Your task to perform on an android device: turn on data saver in the chrome app Image 0: 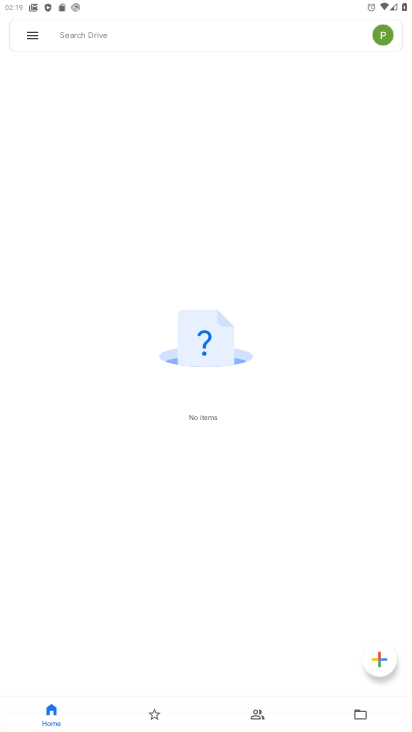
Step 0: press home button
Your task to perform on an android device: turn on data saver in the chrome app Image 1: 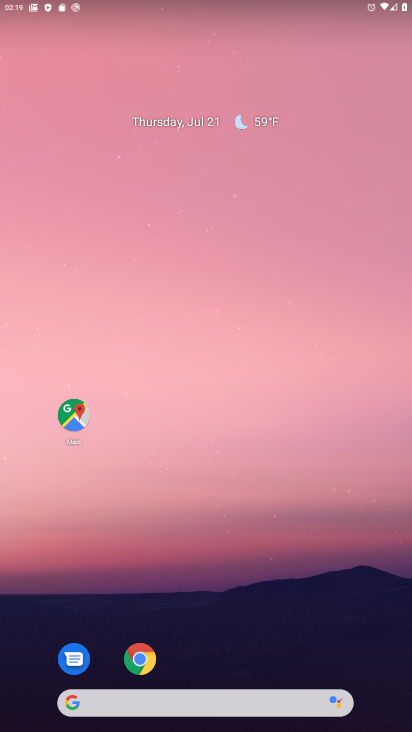
Step 1: drag from (346, 606) to (243, 165)
Your task to perform on an android device: turn on data saver in the chrome app Image 2: 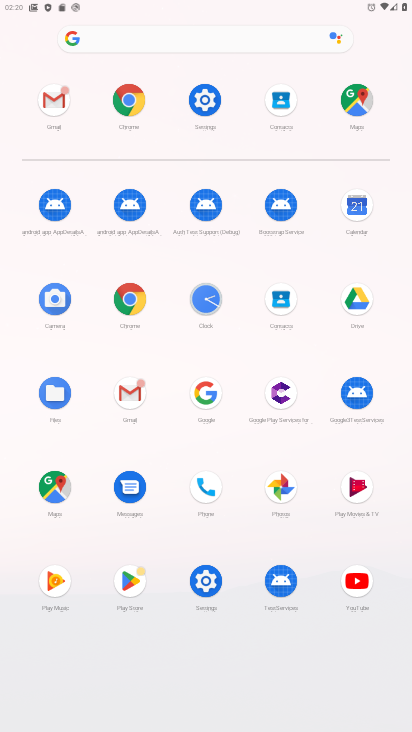
Step 2: click (127, 295)
Your task to perform on an android device: turn on data saver in the chrome app Image 3: 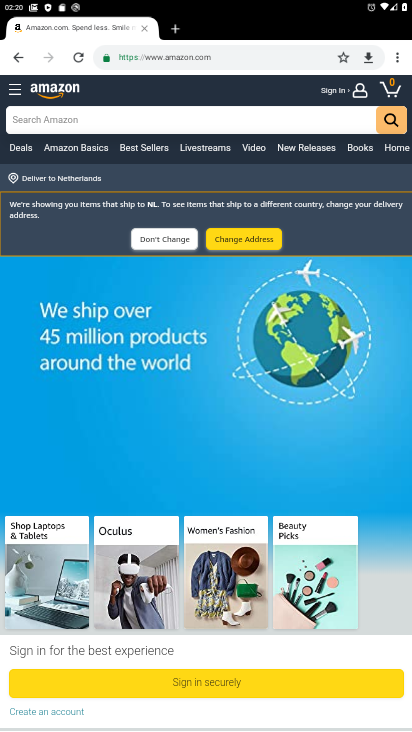
Step 3: drag from (395, 60) to (271, 379)
Your task to perform on an android device: turn on data saver in the chrome app Image 4: 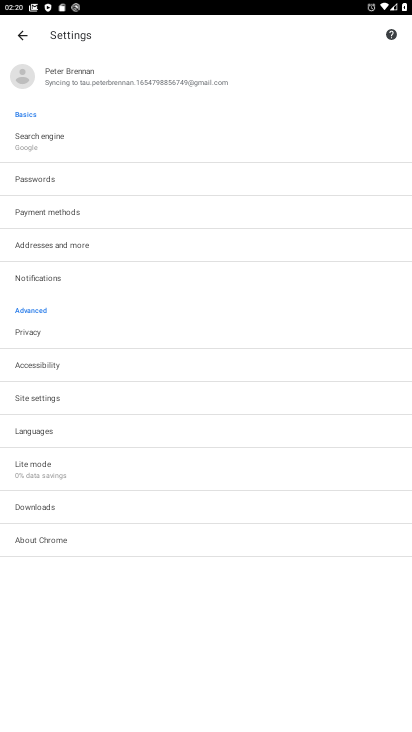
Step 4: click (36, 467)
Your task to perform on an android device: turn on data saver in the chrome app Image 5: 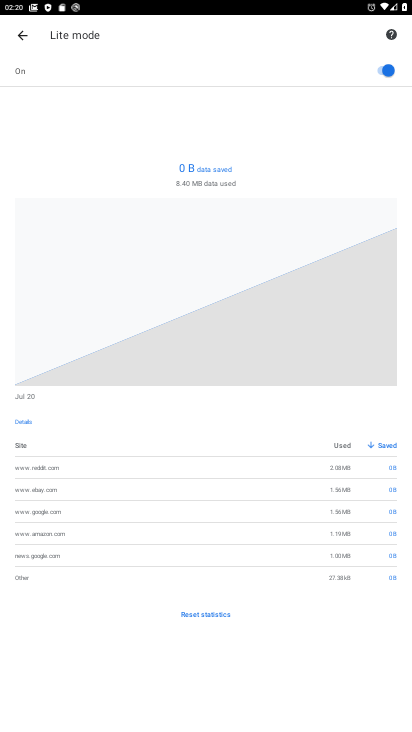
Step 5: task complete